Your task to perform on an android device: uninstall "Duolingo: language lessons" Image 0: 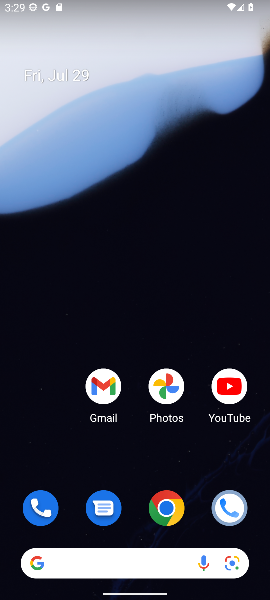
Step 0: drag from (186, 477) to (101, 71)
Your task to perform on an android device: uninstall "Duolingo: language lessons" Image 1: 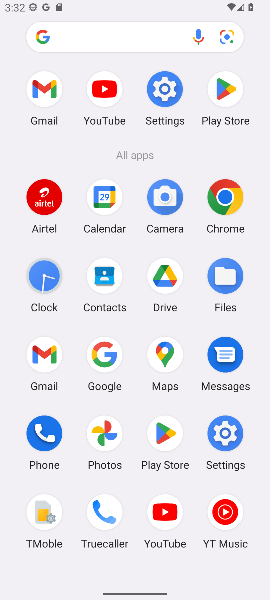
Step 1: click (165, 443)
Your task to perform on an android device: uninstall "Duolingo: language lessons" Image 2: 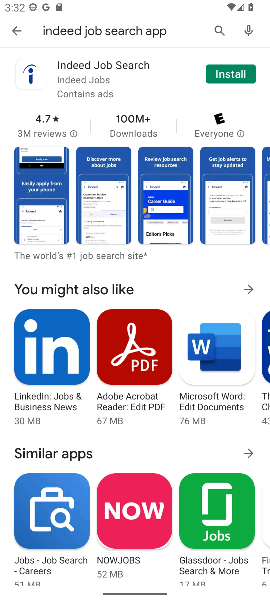
Step 2: press back button
Your task to perform on an android device: uninstall "Duolingo: language lessons" Image 3: 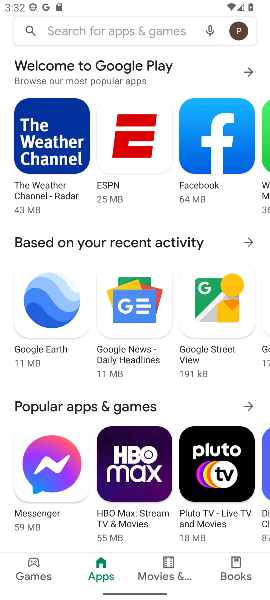
Step 3: click (72, 33)
Your task to perform on an android device: uninstall "Duolingo: language lessons" Image 4: 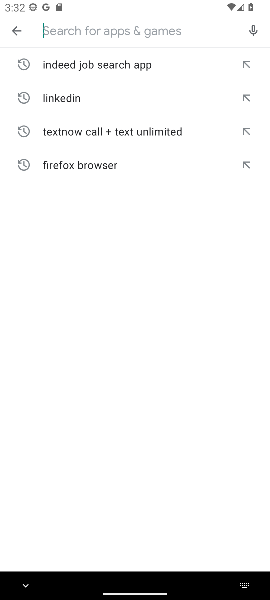
Step 4: type "Duolingo: language lessons"
Your task to perform on an android device: uninstall "Duolingo: language lessons" Image 5: 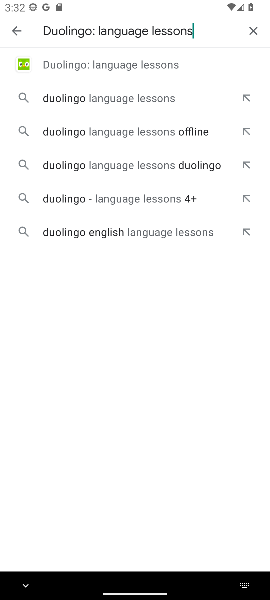
Step 5: click (56, 77)
Your task to perform on an android device: uninstall "Duolingo: language lessons" Image 6: 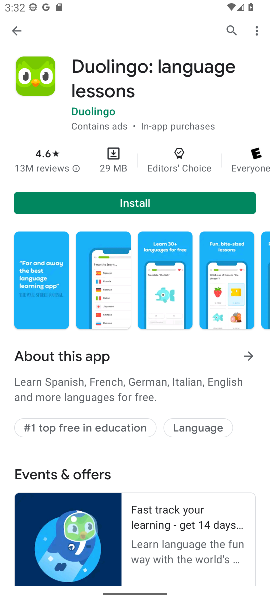
Step 6: task complete